Your task to perform on an android device: see tabs open on other devices in the chrome app Image 0: 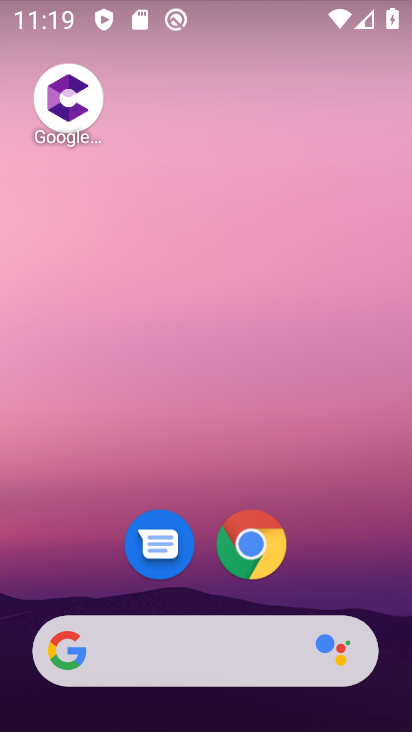
Step 0: click (257, 580)
Your task to perform on an android device: see tabs open on other devices in the chrome app Image 1: 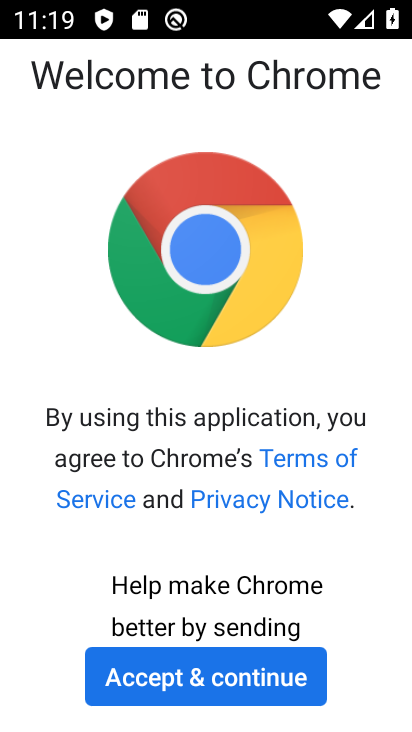
Step 1: click (196, 682)
Your task to perform on an android device: see tabs open on other devices in the chrome app Image 2: 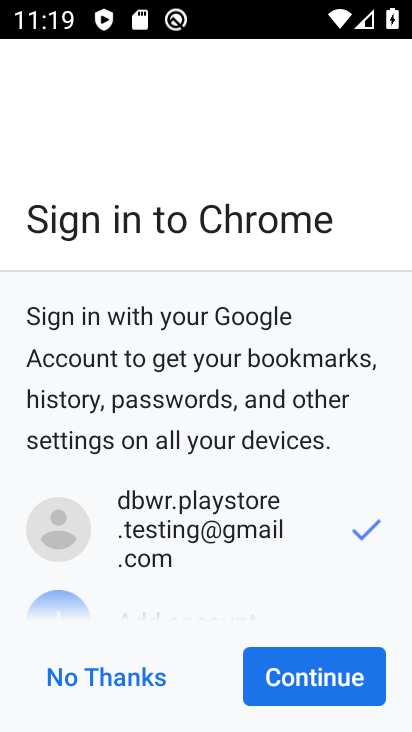
Step 2: click (329, 695)
Your task to perform on an android device: see tabs open on other devices in the chrome app Image 3: 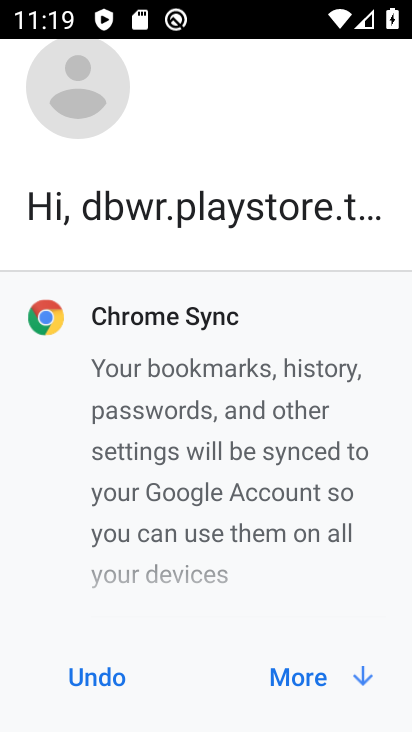
Step 3: click (280, 689)
Your task to perform on an android device: see tabs open on other devices in the chrome app Image 4: 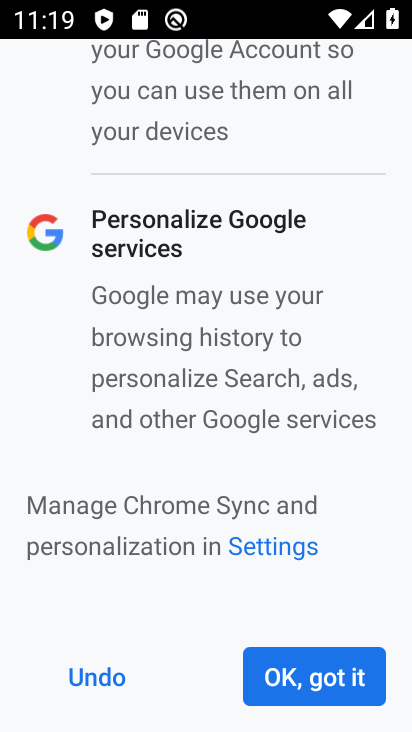
Step 4: click (311, 661)
Your task to perform on an android device: see tabs open on other devices in the chrome app Image 5: 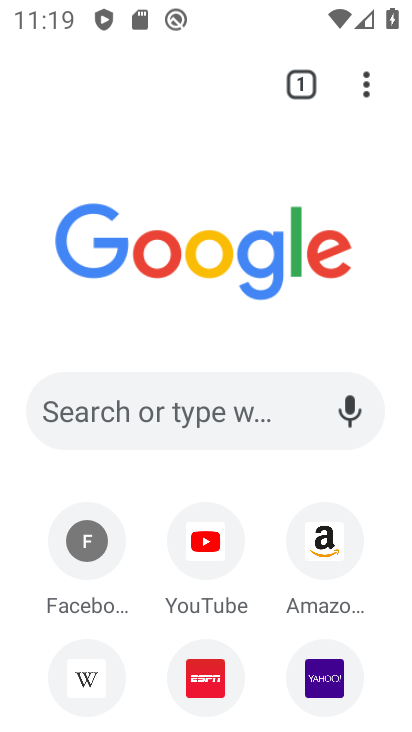
Step 5: click (359, 89)
Your task to perform on an android device: see tabs open on other devices in the chrome app Image 6: 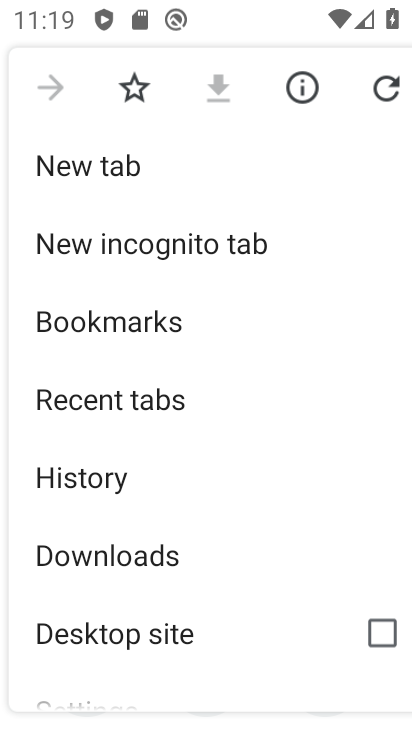
Step 6: click (100, 390)
Your task to perform on an android device: see tabs open on other devices in the chrome app Image 7: 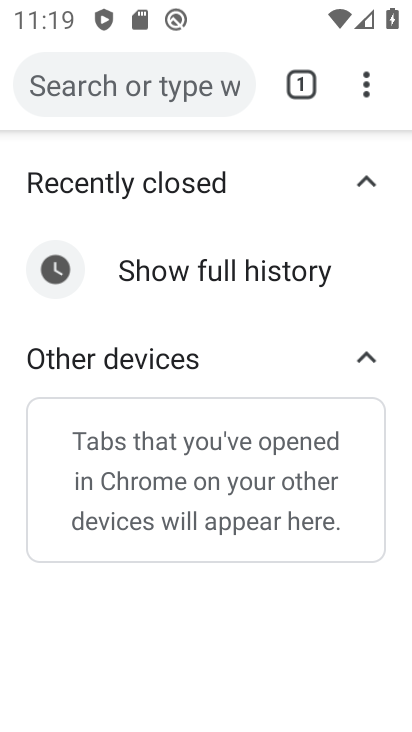
Step 7: task complete